Your task to perform on an android device: open device folders in google photos Image 0: 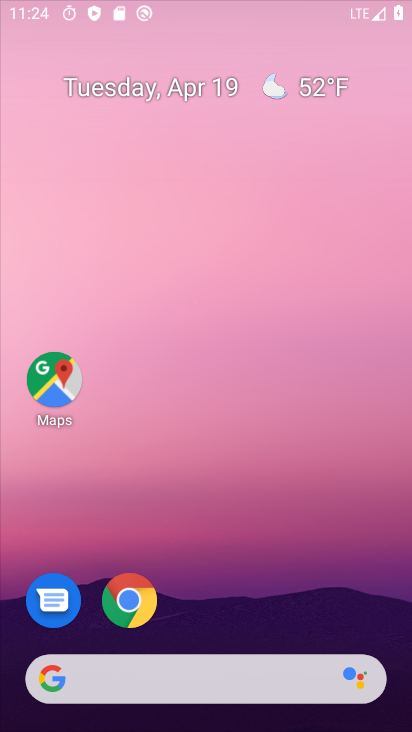
Step 0: drag from (230, 642) to (217, 103)
Your task to perform on an android device: open device folders in google photos Image 1: 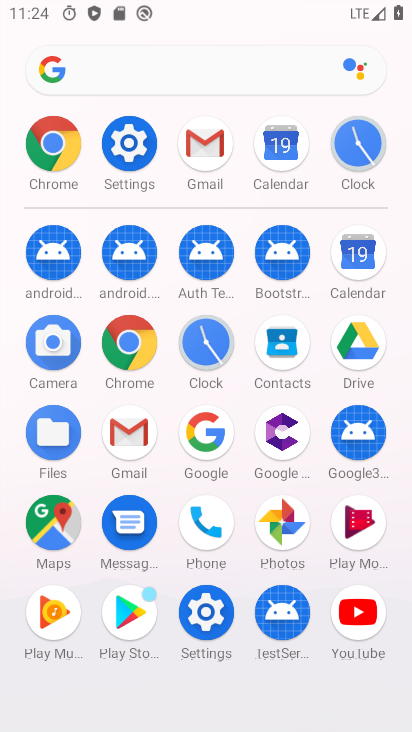
Step 1: click (277, 533)
Your task to perform on an android device: open device folders in google photos Image 2: 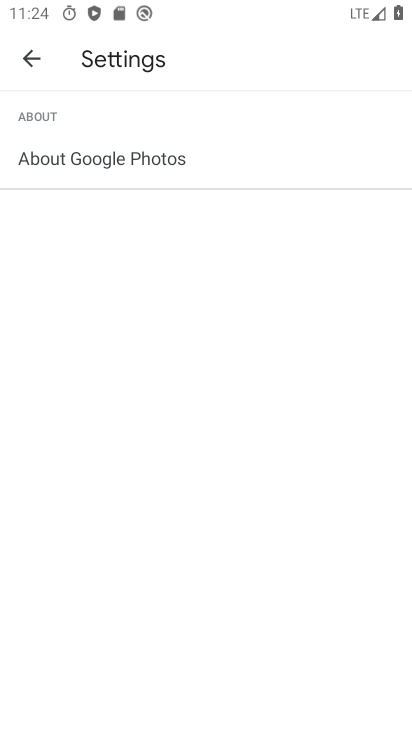
Step 2: click (30, 69)
Your task to perform on an android device: open device folders in google photos Image 3: 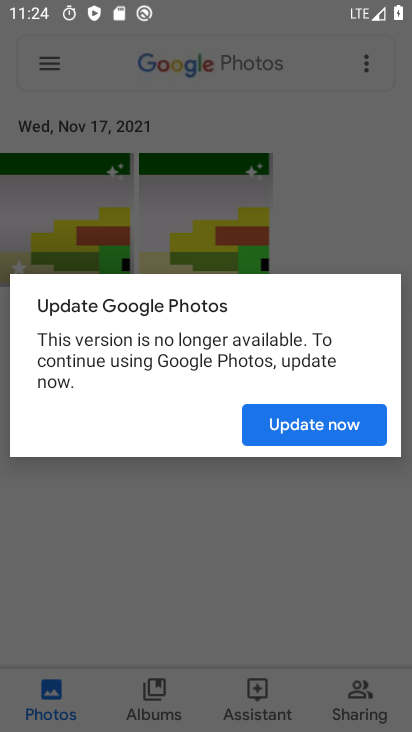
Step 3: click (33, 65)
Your task to perform on an android device: open device folders in google photos Image 4: 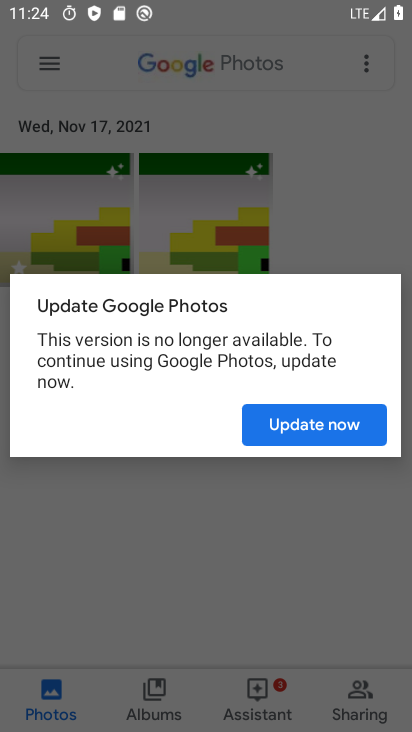
Step 4: click (293, 424)
Your task to perform on an android device: open device folders in google photos Image 5: 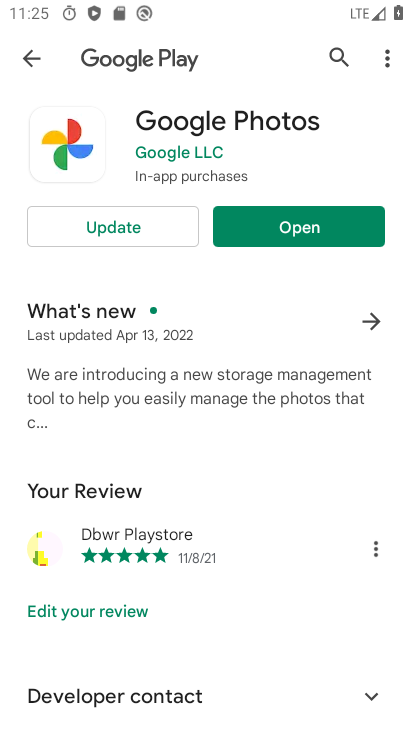
Step 5: press home button
Your task to perform on an android device: open device folders in google photos Image 6: 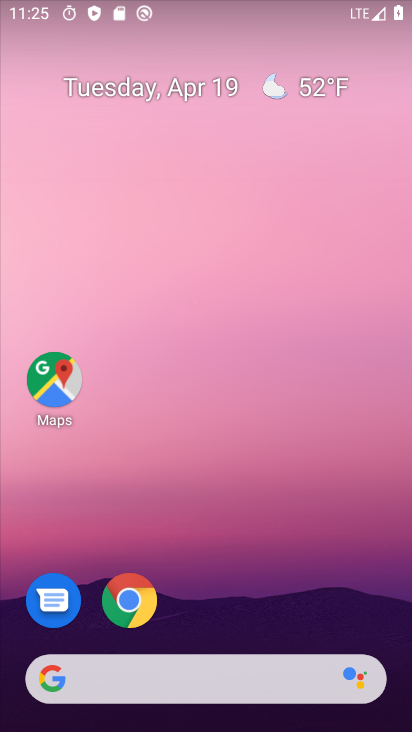
Step 6: drag from (212, 617) to (199, 89)
Your task to perform on an android device: open device folders in google photos Image 7: 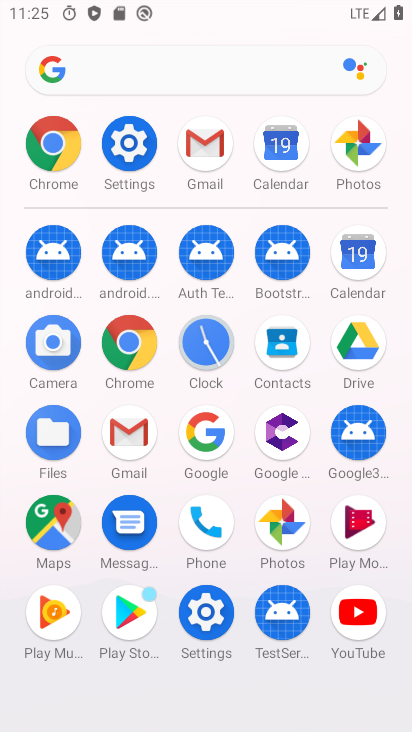
Step 7: click (276, 532)
Your task to perform on an android device: open device folders in google photos Image 8: 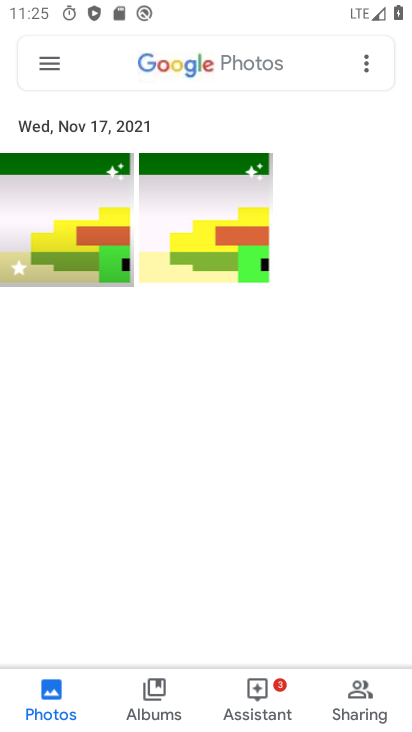
Step 8: click (33, 48)
Your task to perform on an android device: open device folders in google photos Image 9: 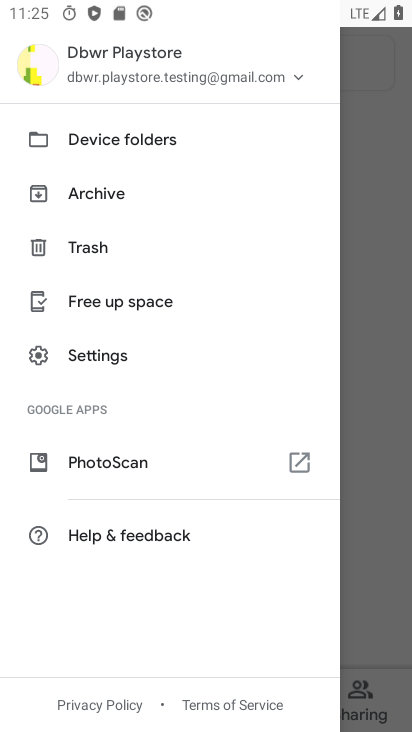
Step 9: click (106, 148)
Your task to perform on an android device: open device folders in google photos Image 10: 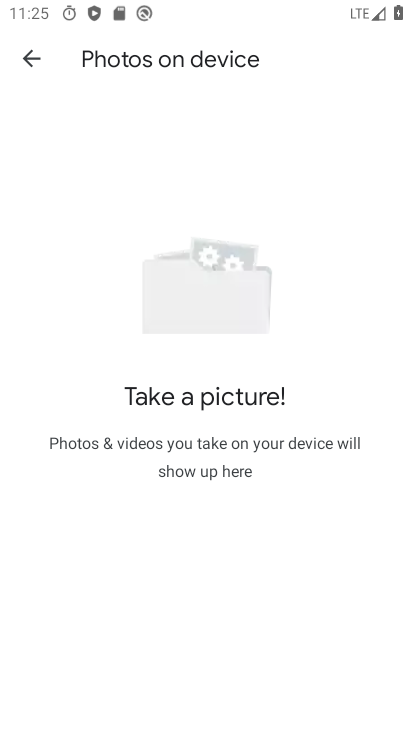
Step 10: task complete